Your task to perform on an android device: turn on bluetooth scan Image 0: 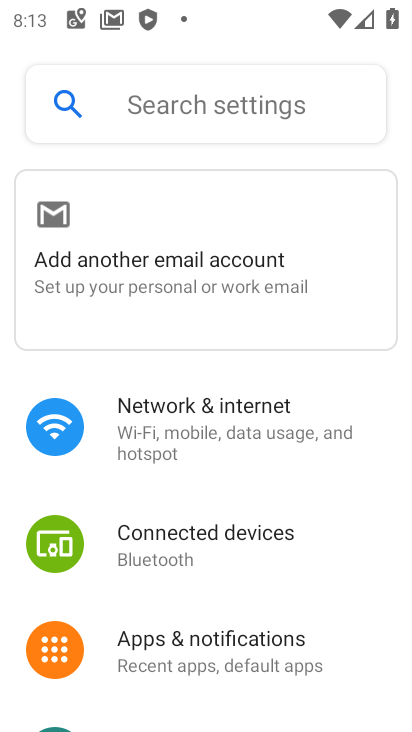
Step 0: press home button
Your task to perform on an android device: turn on bluetooth scan Image 1: 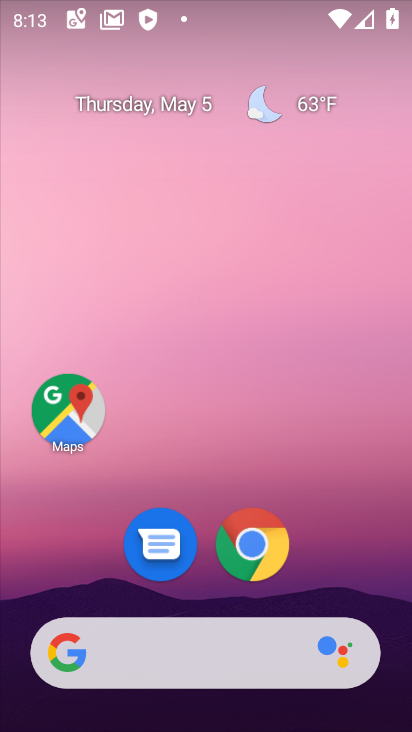
Step 1: drag from (375, 561) to (303, 173)
Your task to perform on an android device: turn on bluetooth scan Image 2: 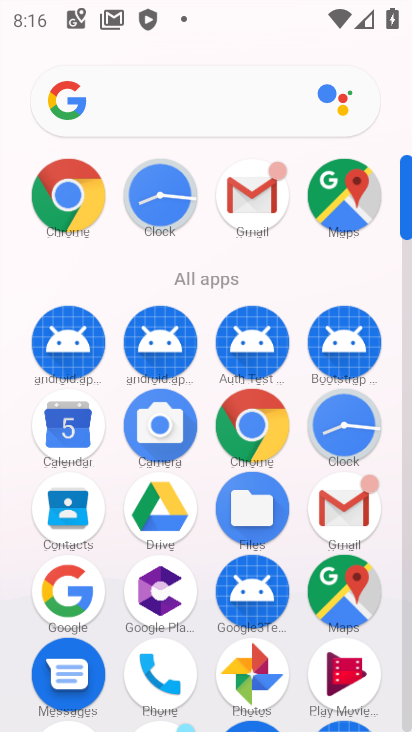
Step 2: click (409, 725)
Your task to perform on an android device: turn on bluetooth scan Image 3: 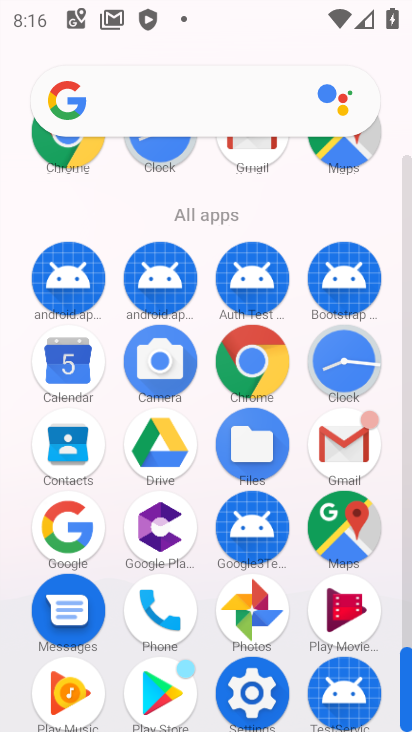
Step 3: click (239, 692)
Your task to perform on an android device: turn on bluetooth scan Image 4: 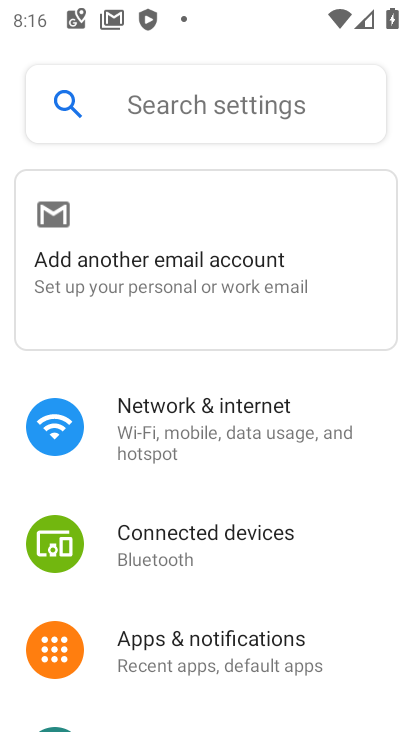
Step 4: drag from (203, 627) to (257, 176)
Your task to perform on an android device: turn on bluetooth scan Image 5: 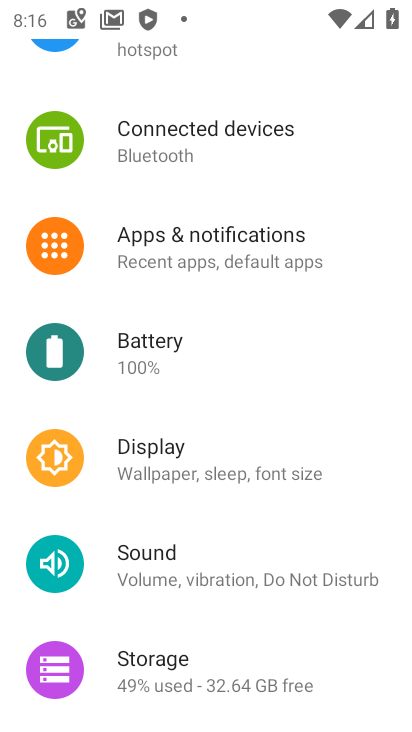
Step 5: drag from (190, 627) to (254, 208)
Your task to perform on an android device: turn on bluetooth scan Image 6: 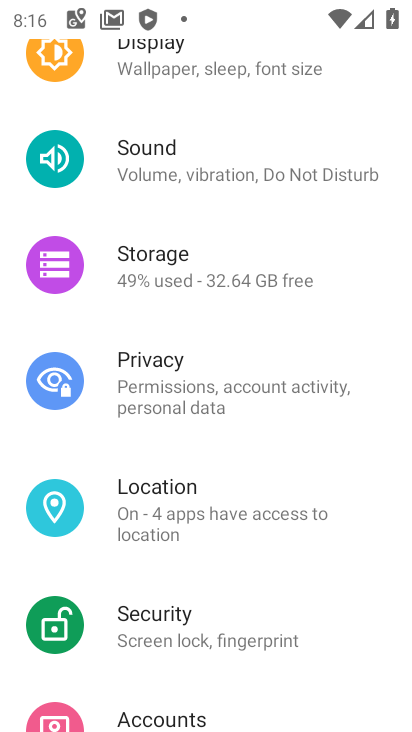
Step 6: click (213, 488)
Your task to perform on an android device: turn on bluetooth scan Image 7: 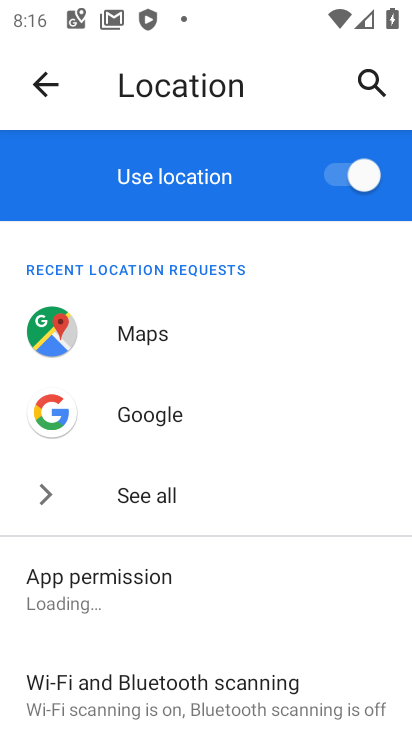
Step 7: click (174, 711)
Your task to perform on an android device: turn on bluetooth scan Image 8: 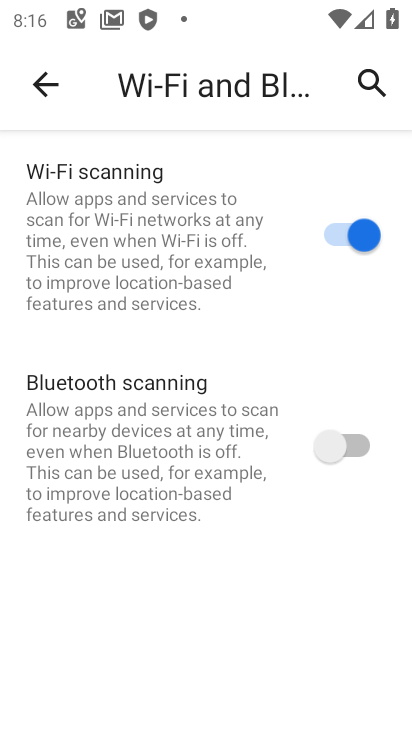
Step 8: click (352, 446)
Your task to perform on an android device: turn on bluetooth scan Image 9: 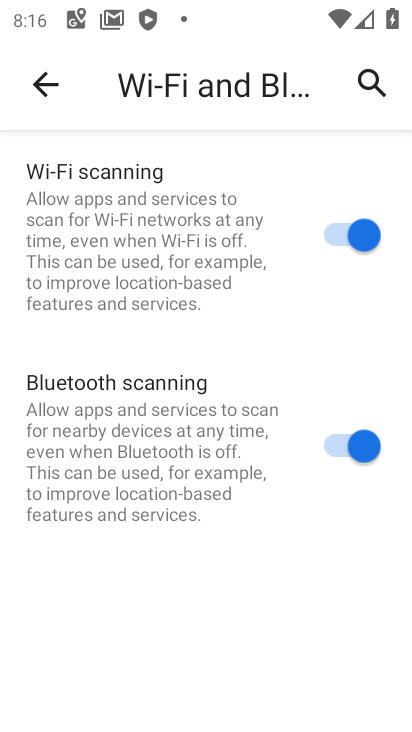
Step 9: task complete